Your task to perform on an android device: change the clock style Image 0: 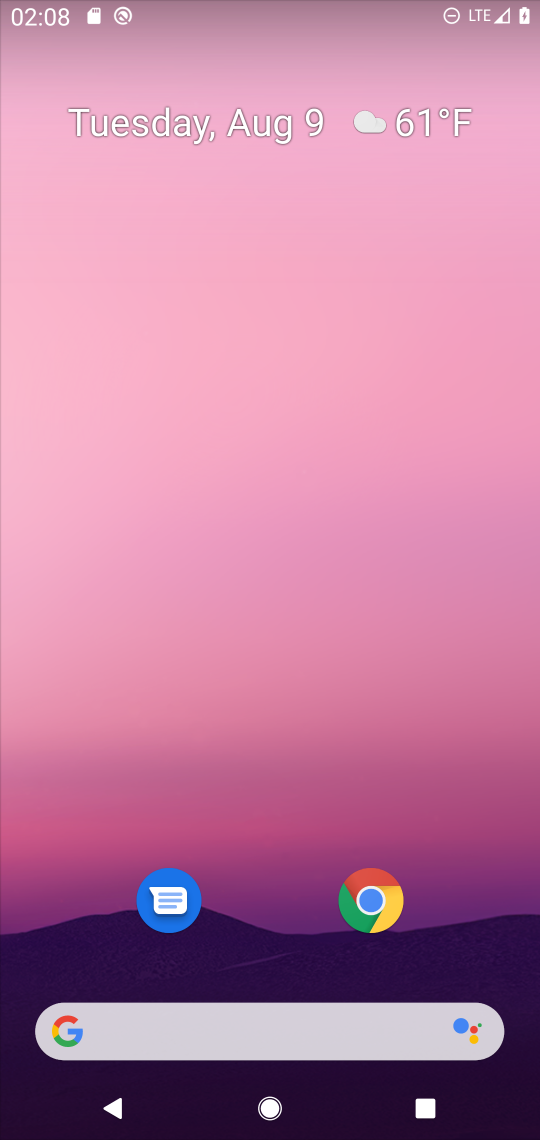
Step 0: press home button
Your task to perform on an android device: change the clock style Image 1: 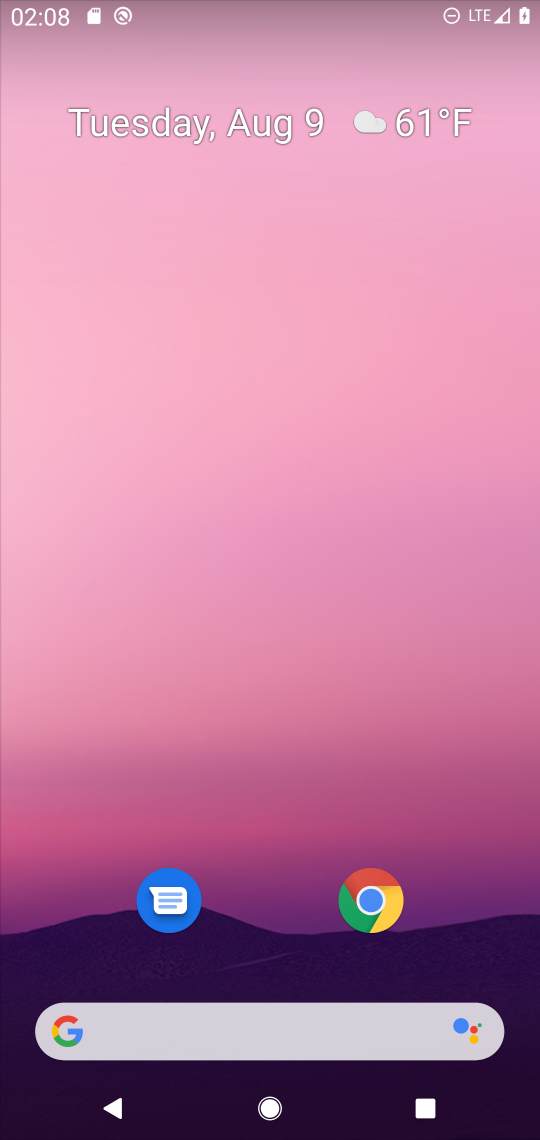
Step 1: drag from (271, 910) to (367, 100)
Your task to perform on an android device: change the clock style Image 2: 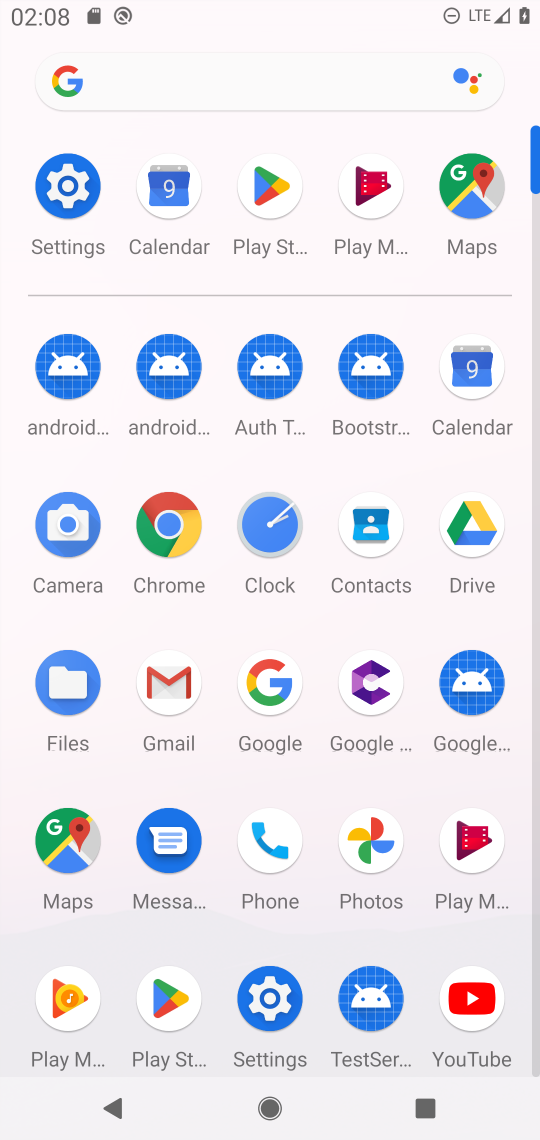
Step 2: click (274, 525)
Your task to perform on an android device: change the clock style Image 3: 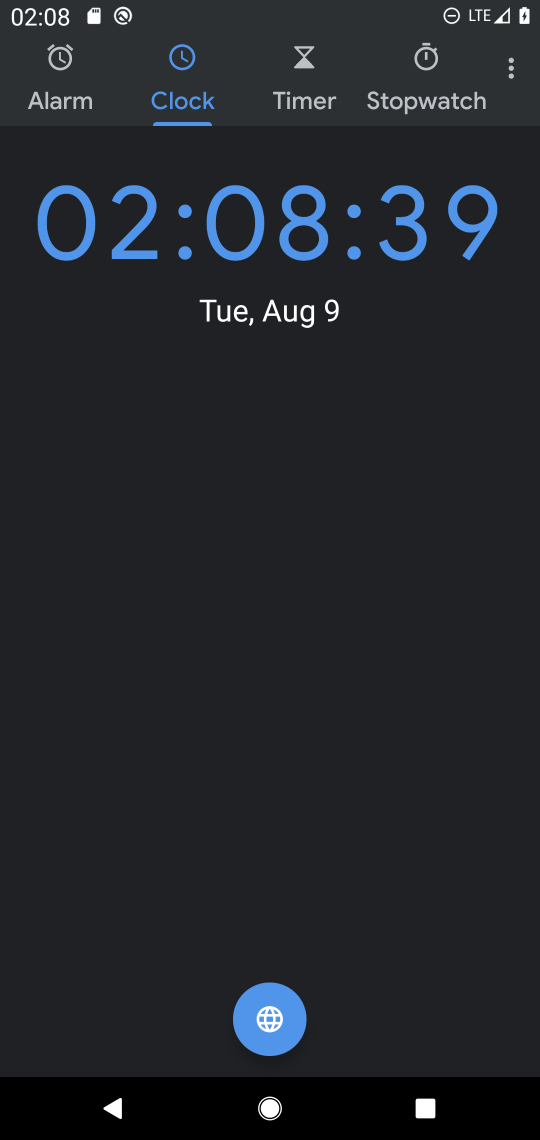
Step 3: click (514, 71)
Your task to perform on an android device: change the clock style Image 4: 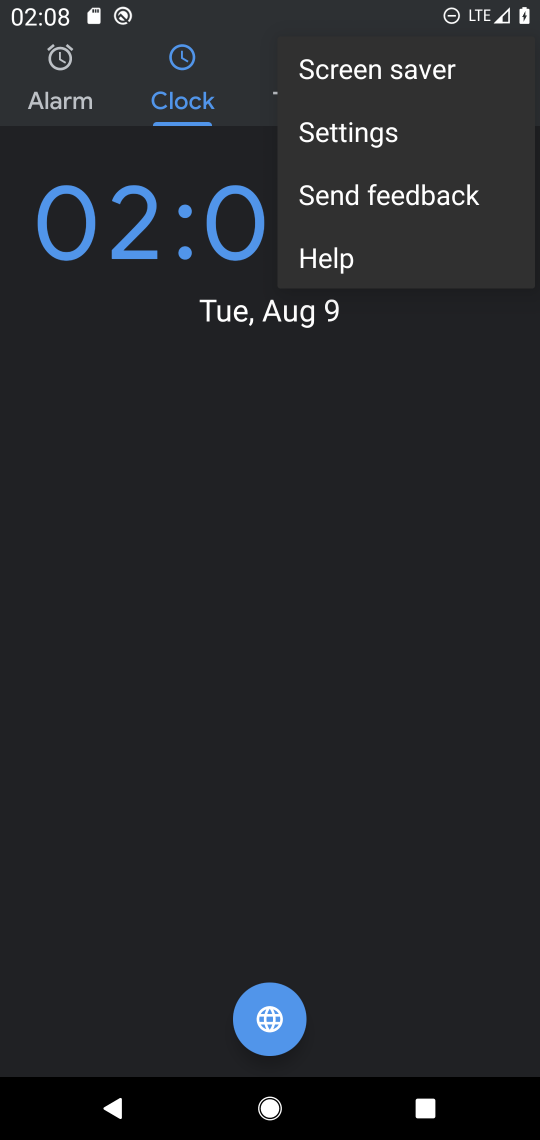
Step 4: click (391, 134)
Your task to perform on an android device: change the clock style Image 5: 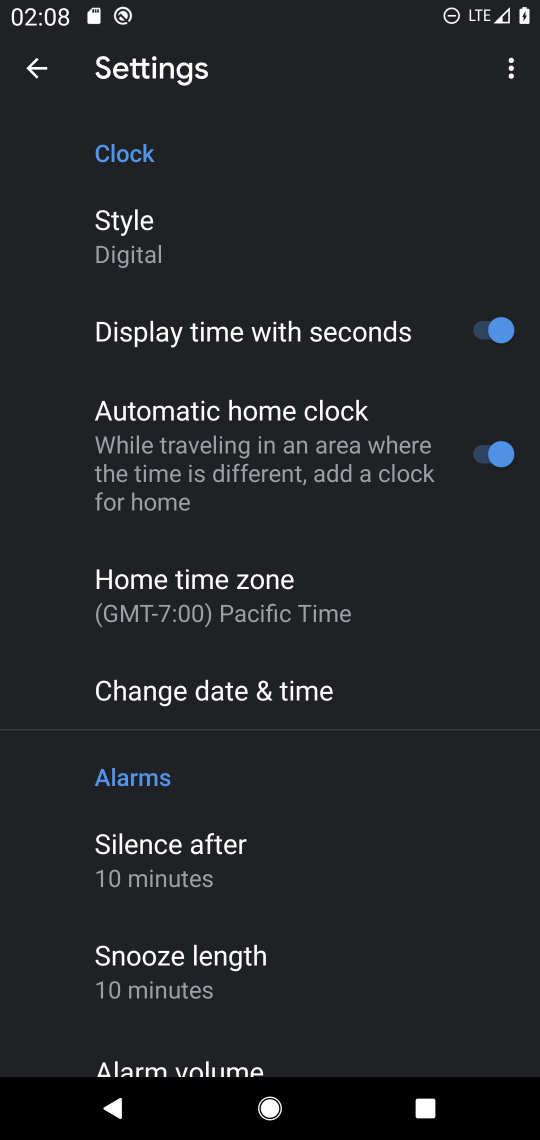
Step 5: drag from (387, 828) to (436, 439)
Your task to perform on an android device: change the clock style Image 6: 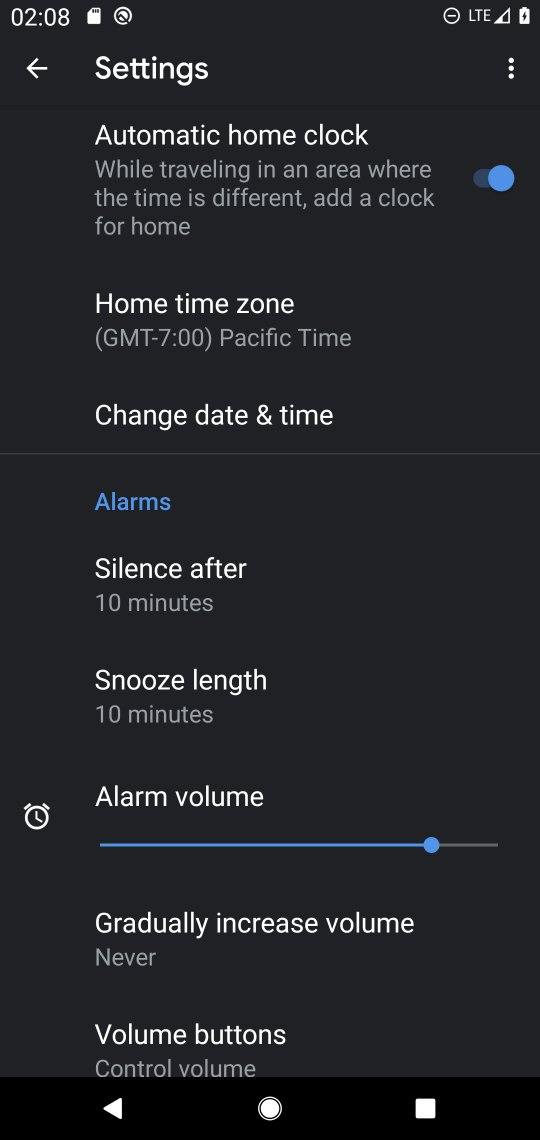
Step 6: drag from (412, 715) to (449, 271)
Your task to perform on an android device: change the clock style Image 7: 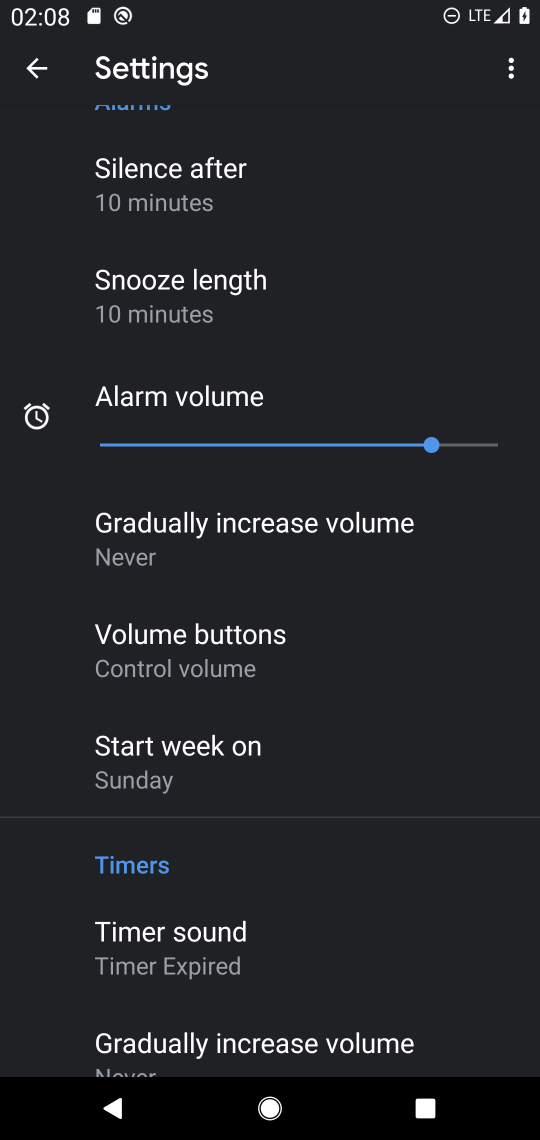
Step 7: drag from (416, 748) to (448, 307)
Your task to perform on an android device: change the clock style Image 8: 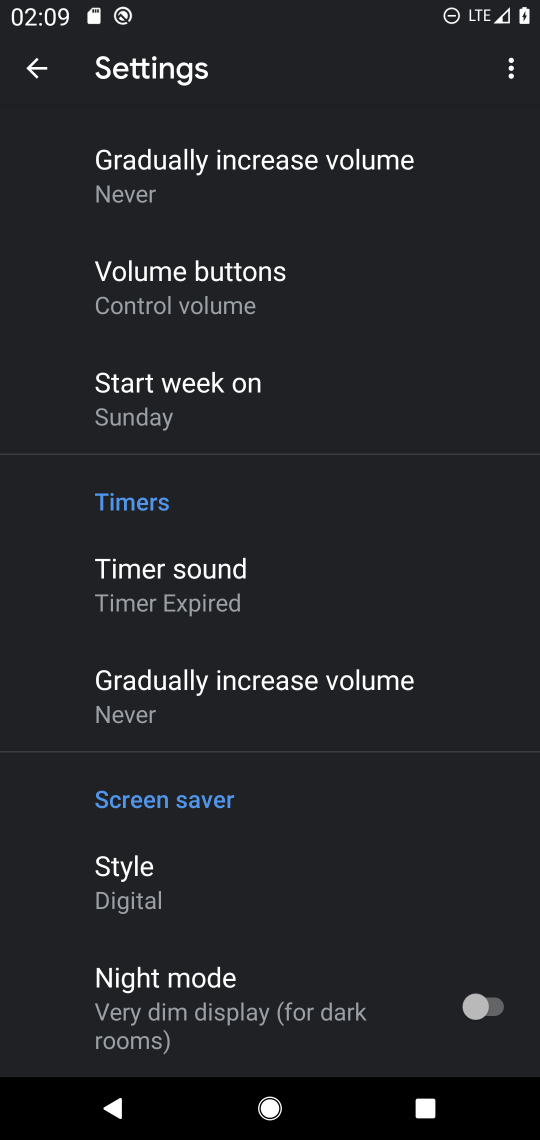
Step 8: drag from (417, 827) to (451, 361)
Your task to perform on an android device: change the clock style Image 9: 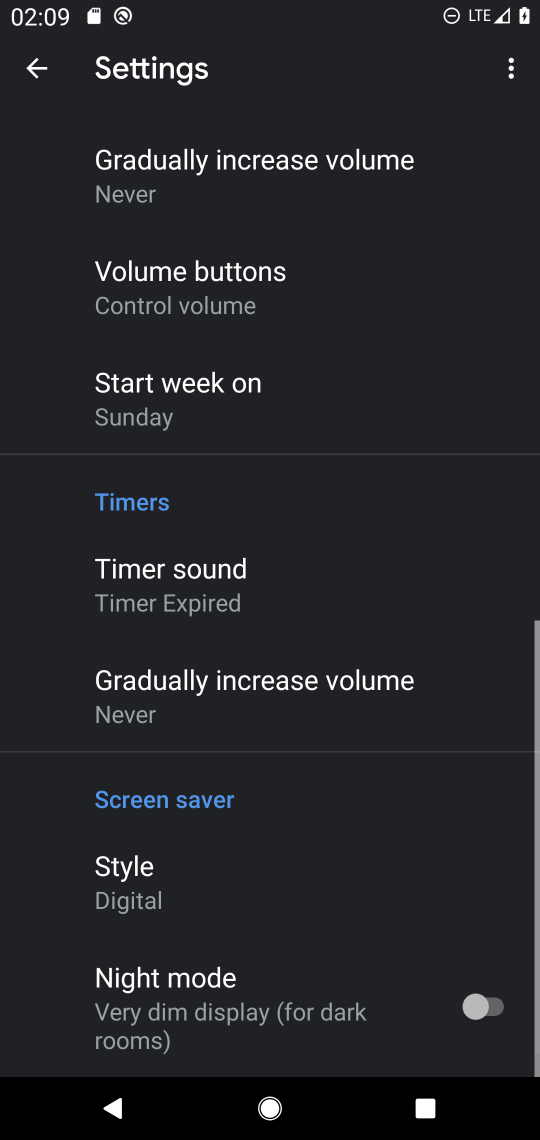
Step 9: drag from (437, 289) to (402, 757)
Your task to perform on an android device: change the clock style Image 10: 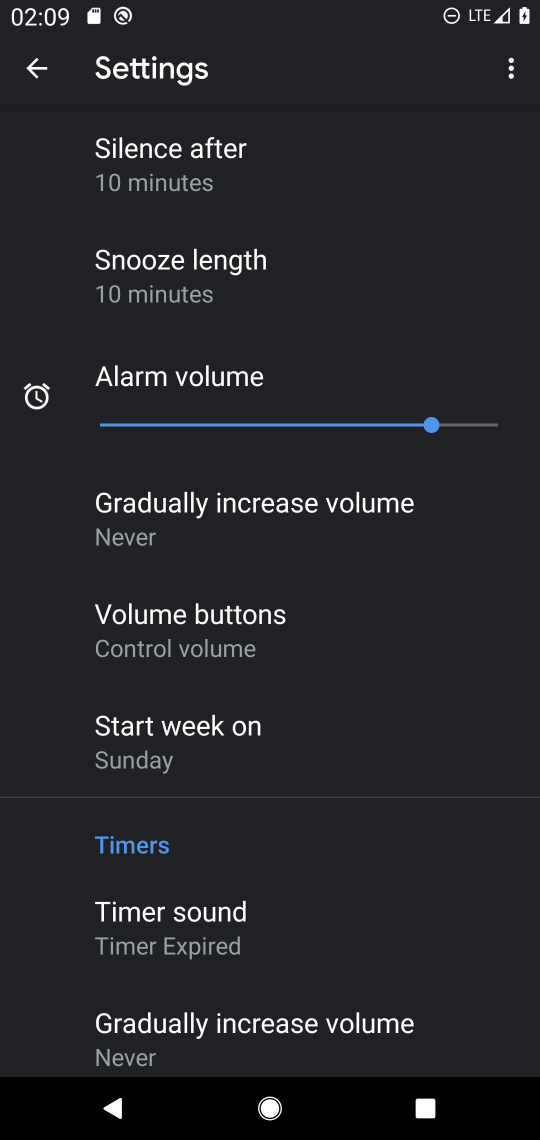
Step 10: drag from (411, 301) to (400, 700)
Your task to perform on an android device: change the clock style Image 11: 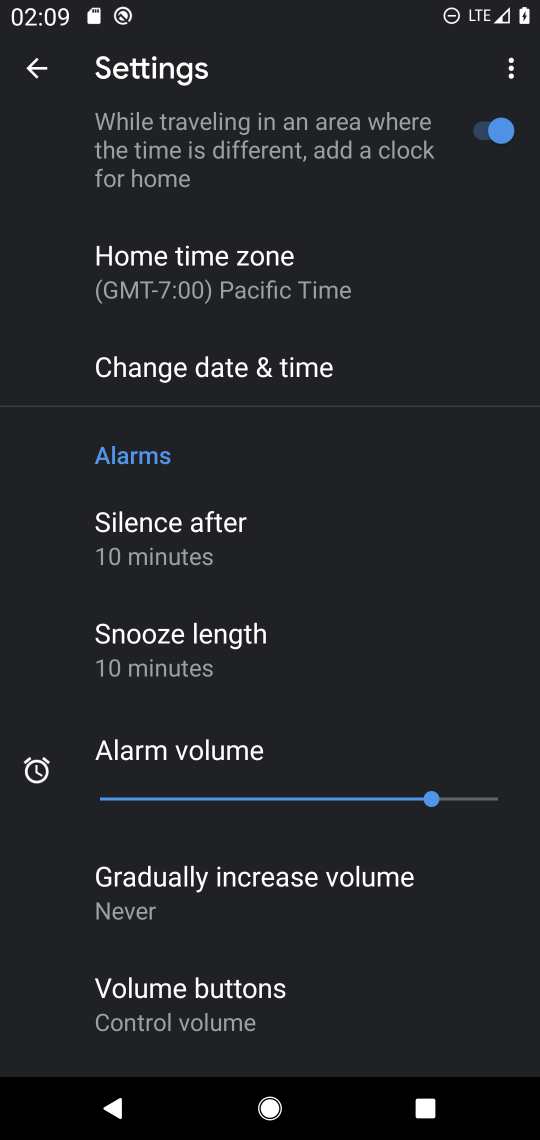
Step 11: drag from (422, 281) to (427, 614)
Your task to perform on an android device: change the clock style Image 12: 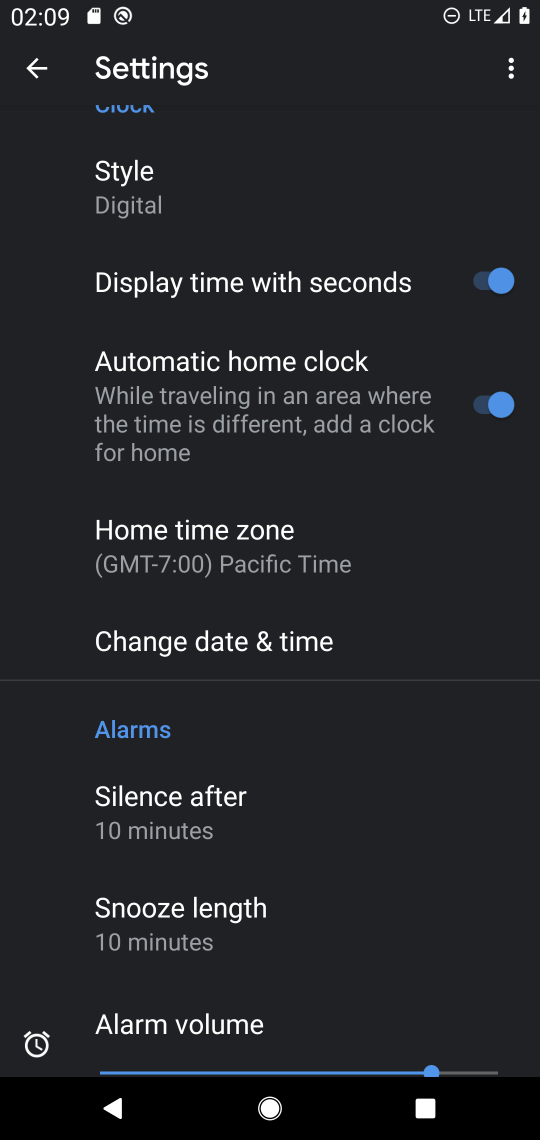
Step 12: drag from (442, 278) to (408, 756)
Your task to perform on an android device: change the clock style Image 13: 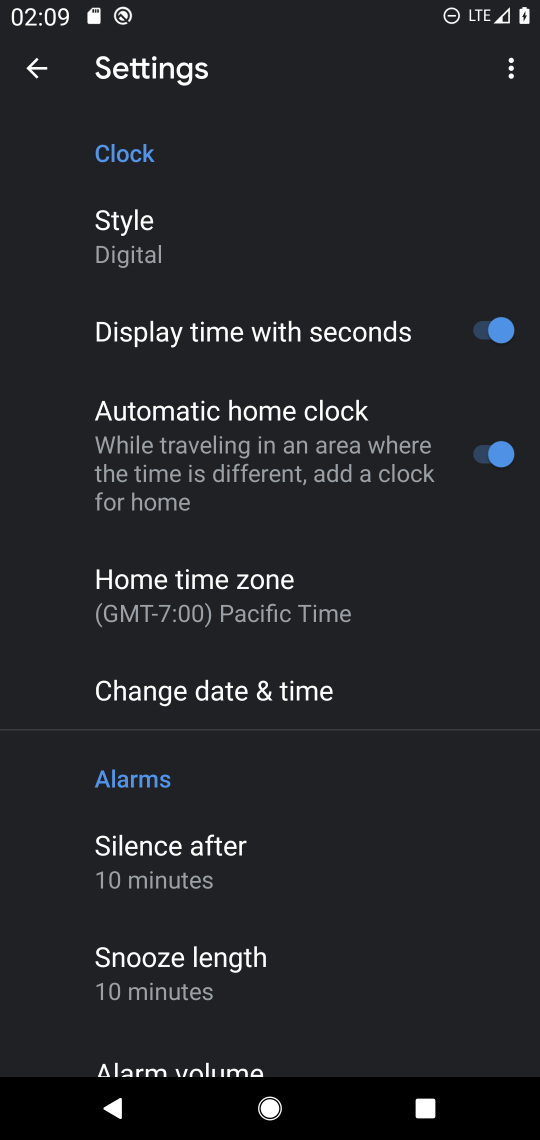
Step 13: click (163, 247)
Your task to perform on an android device: change the clock style Image 14: 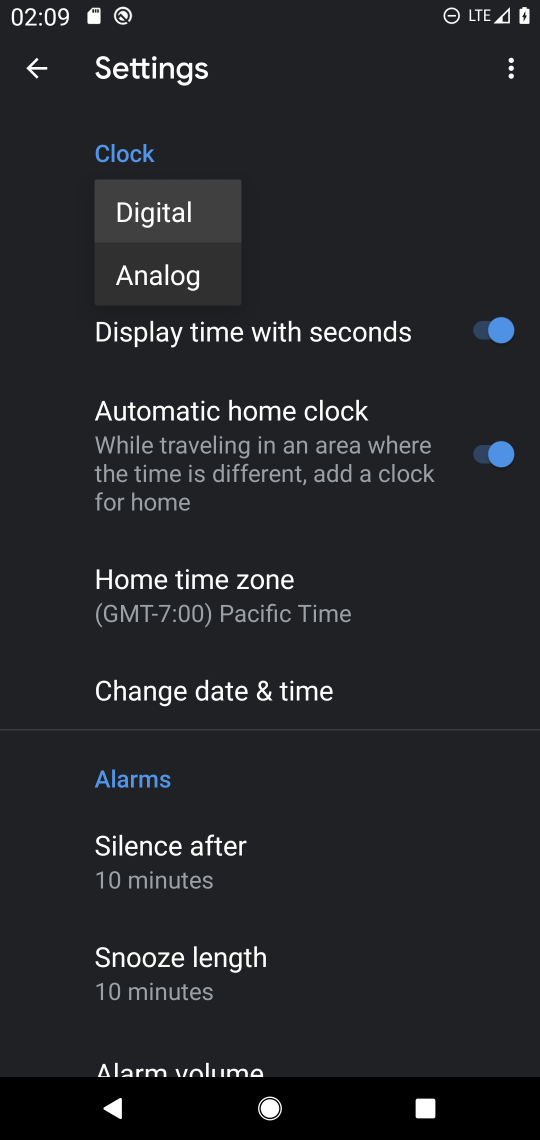
Step 14: click (129, 273)
Your task to perform on an android device: change the clock style Image 15: 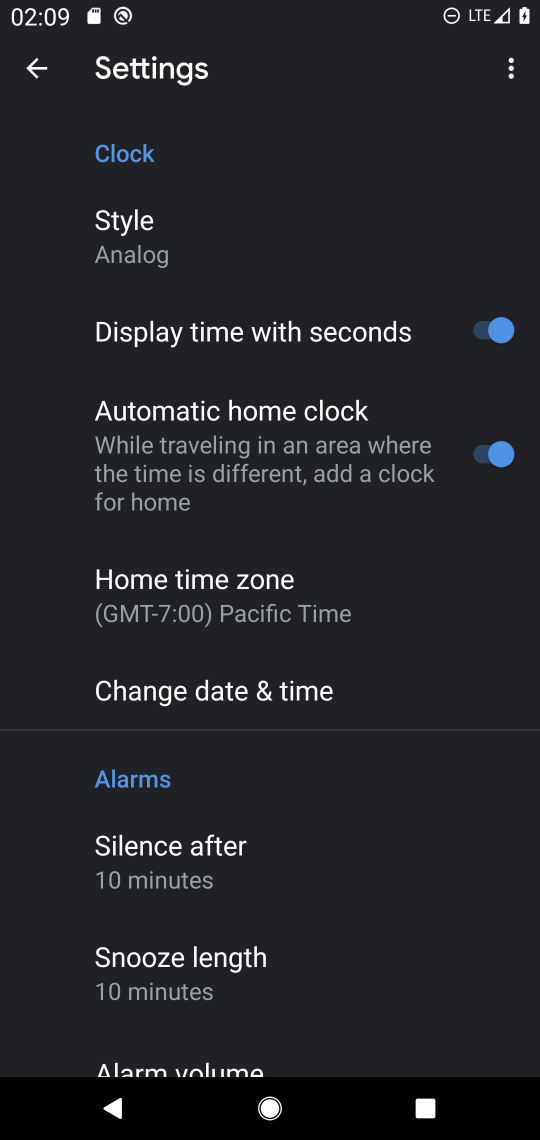
Step 15: task complete